Your task to perform on an android device: toggle notification dots Image 0: 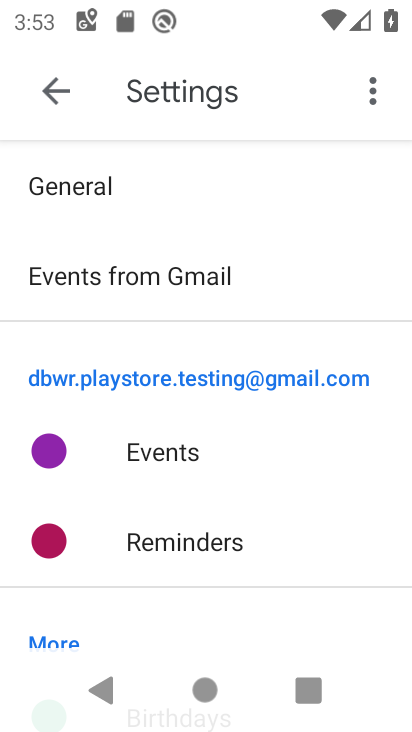
Step 0: press home button
Your task to perform on an android device: toggle notification dots Image 1: 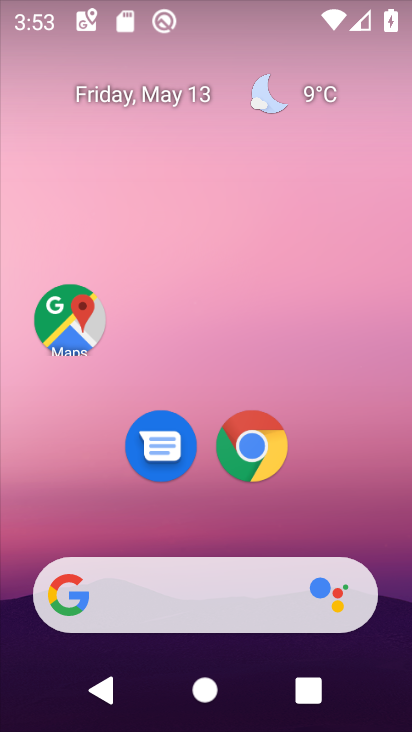
Step 1: drag from (227, 523) to (245, 91)
Your task to perform on an android device: toggle notification dots Image 2: 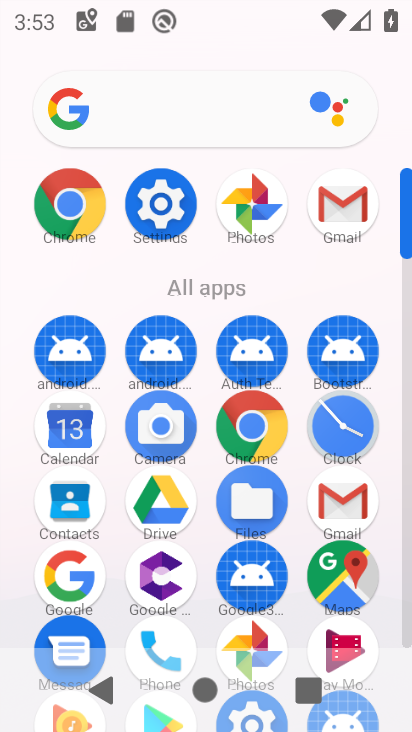
Step 2: click (135, 214)
Your task to perform on an android device: toggle notification dots Image 3: 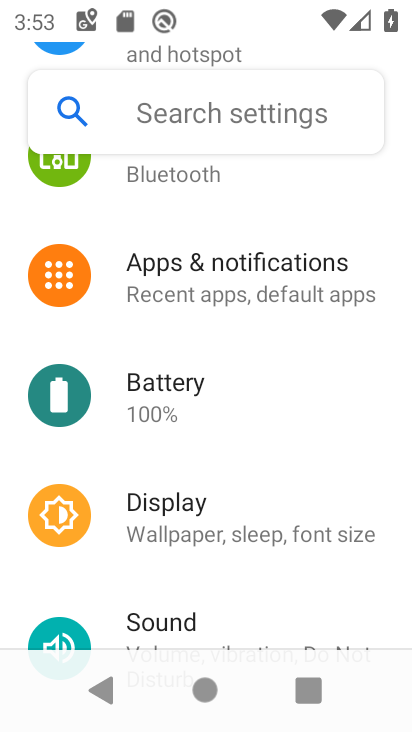
Step 3: drag from (211, 539) to (210, 299)
Your task to perform on an android device: toggle notification dots Image 4: 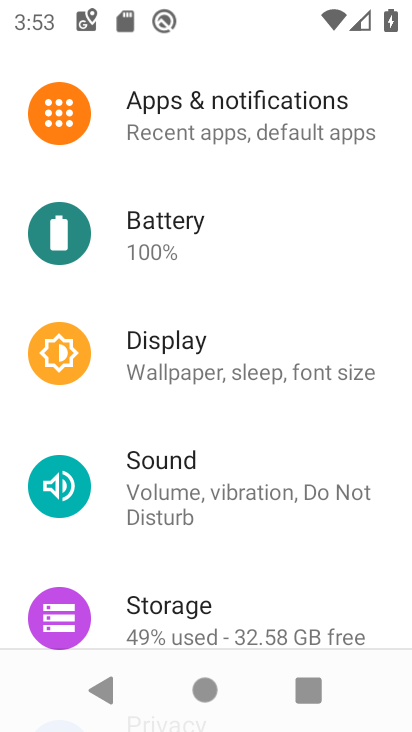
Step 4: click (256, 135)
Your task to perform on an android device: toggle notification dots Image 5: 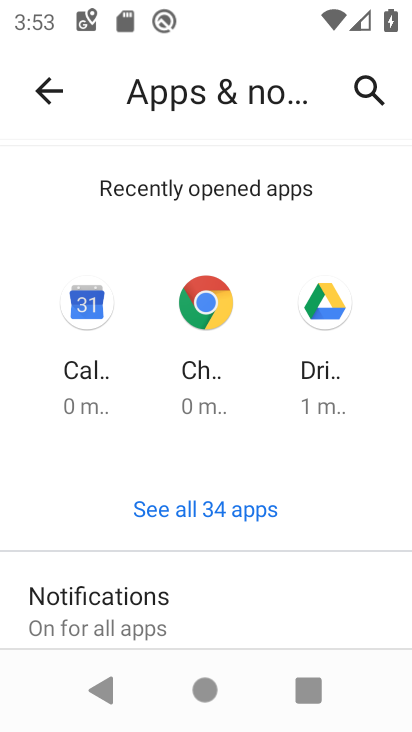
Step 5: click (197, 599)
Your task to perform on an android device: toggle notification dots Image 6: 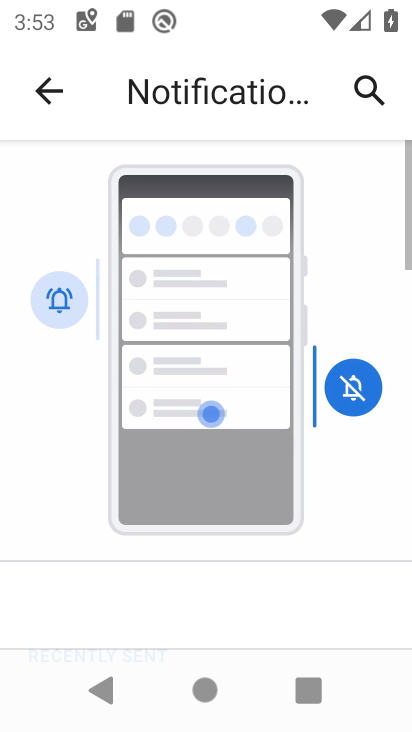
Step 6: drag from (197, 602) to (247, 135)
Your task to perform on an android device: toggle notification dots Image 7: 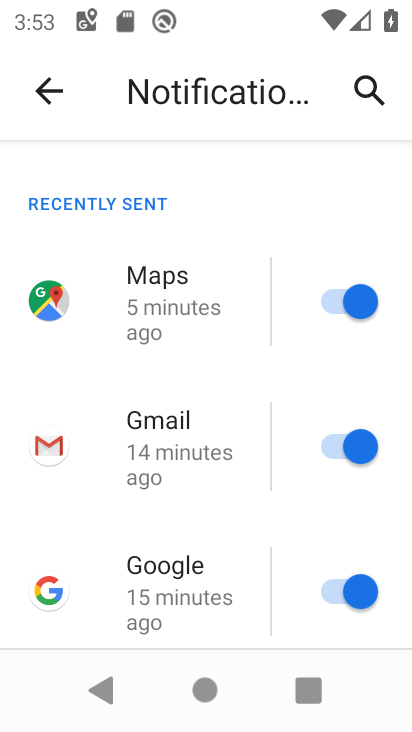
Step 7: drag from (198, 556) to (225, 204)
Your task to perform on an android device: toggle notification dots Image 8: 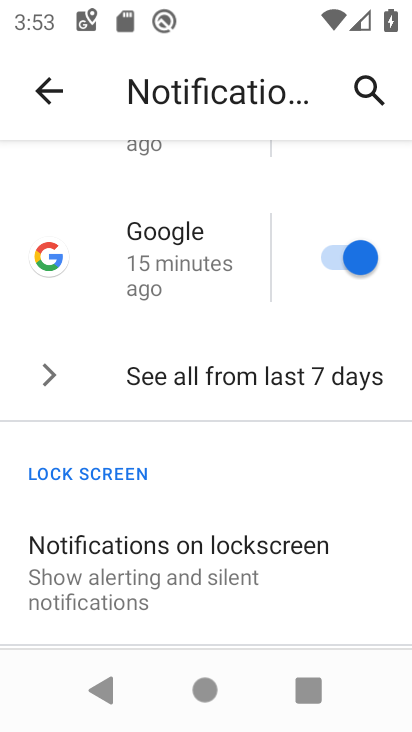
Step 8: drag from (197, 570) to (214, 106)
Your task to perform on an android device: toggle notification dots Image 9: 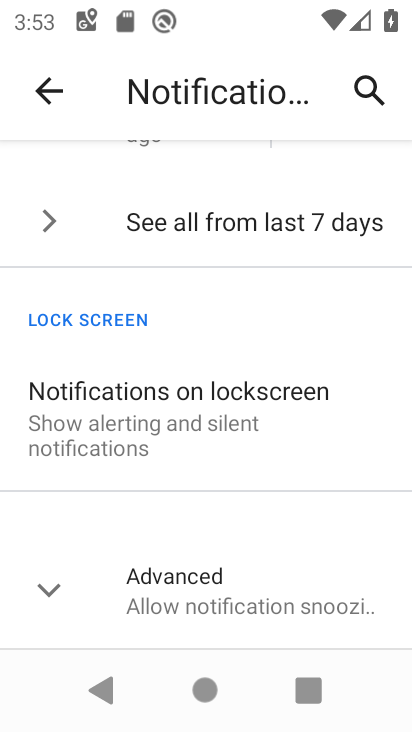
Step 9: click (176, 616)
Your task to perform on an android device: toggle notification dots Image 10: 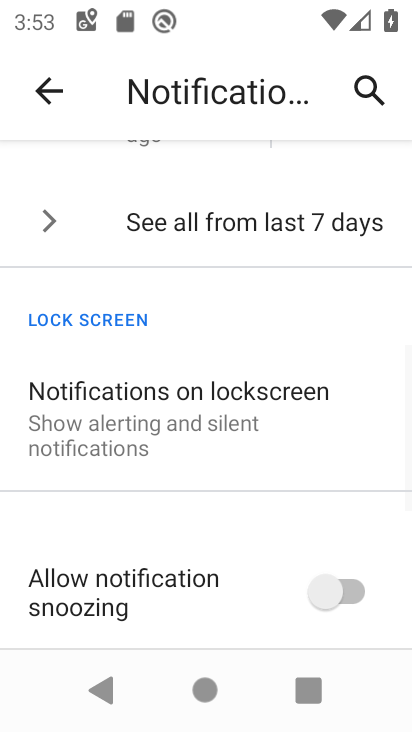
Step 10: drag from (176, 616) to (248, 266)
Your task to perform on an android device: toggle notification dots Image 11: 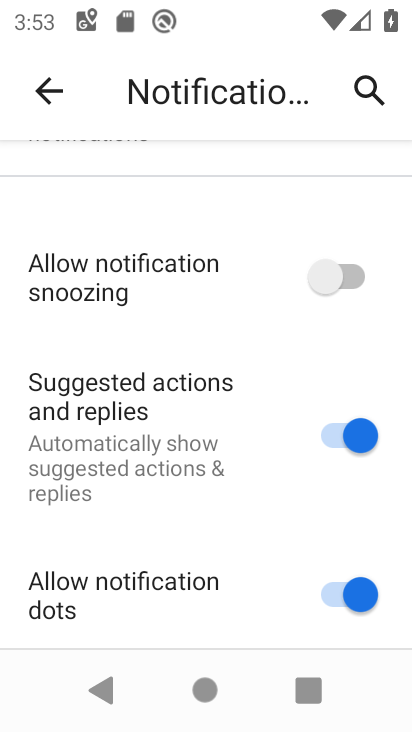
Step 11: drag from (218, 558) to (225, 344)
Your task to perform on an android device: toggle notification dots Image 12: 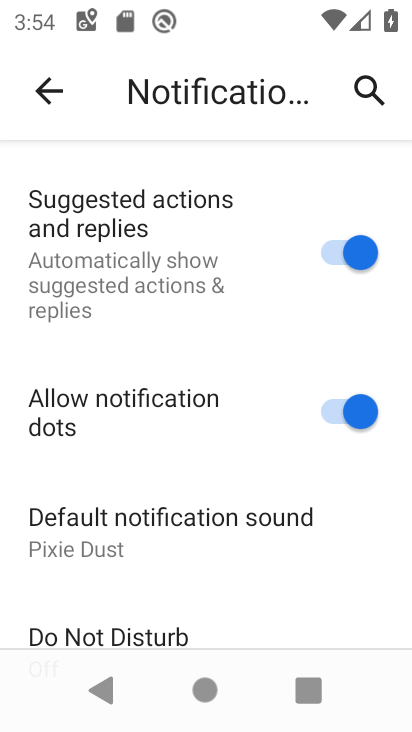
Step 12: click (347, 412)
Your task to perform on an android device: toggle notification dots Image 13: 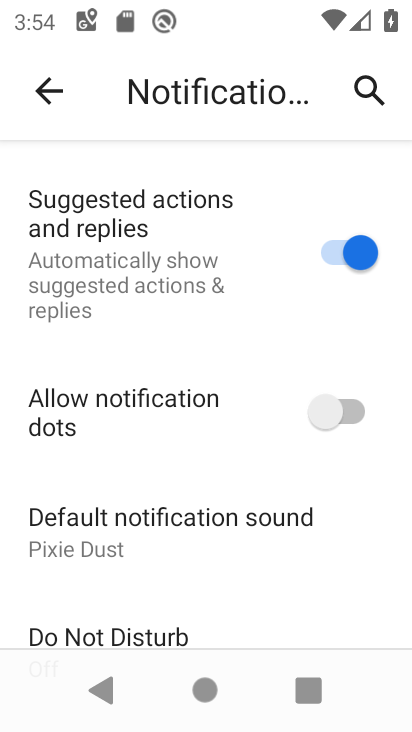
Step 13: task complete